Your task to perform on an android device: make emails show in primary in the gmail app Image 0: 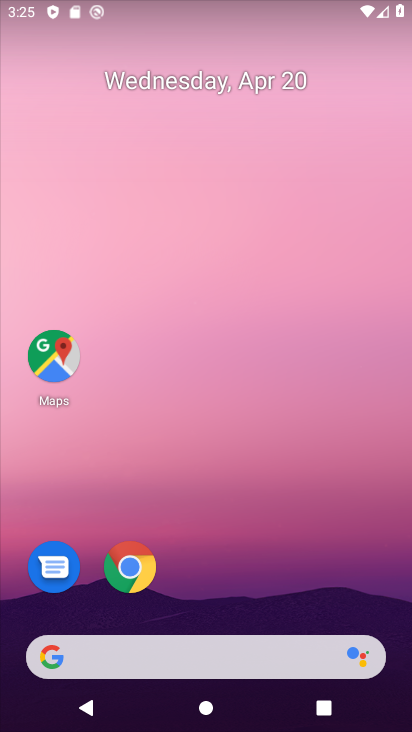
Step 0: drag from (381, 586) to (323, 35)
Your task to perform on an android device: make emails show in primary in the gmail app Image 1: 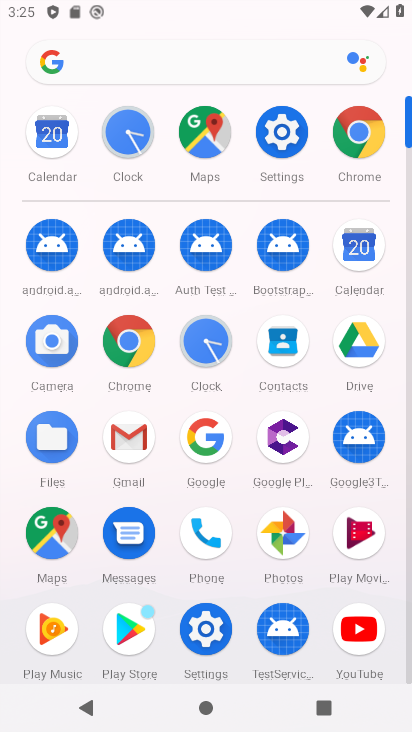
Step 1: click (124, 440)
Your task to perform on an android device: make emails show in primary in the gmail app Image 2: 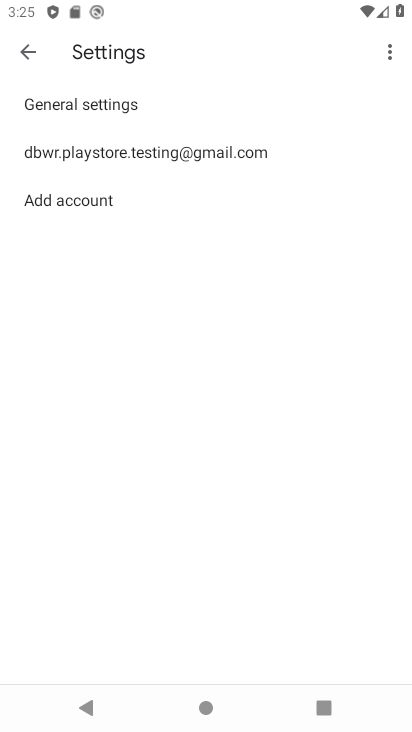
Step 2: click (257, 164)
Your task to perform on an android device: make emails show in primary in the gmail app Image 3: 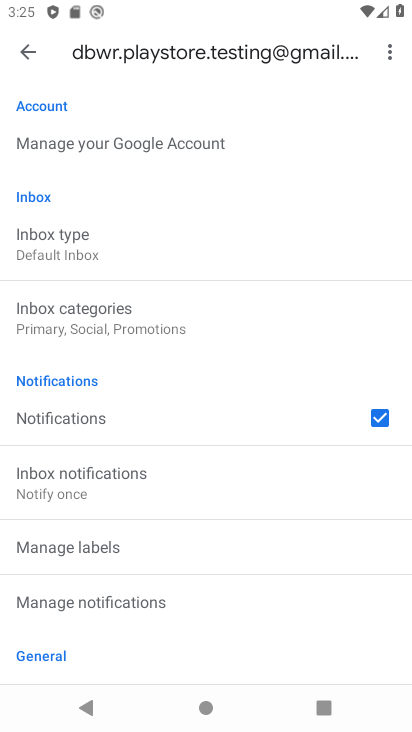
Step 3: task complete